Your task to perform on an android device: Go to internet settings Image 0: 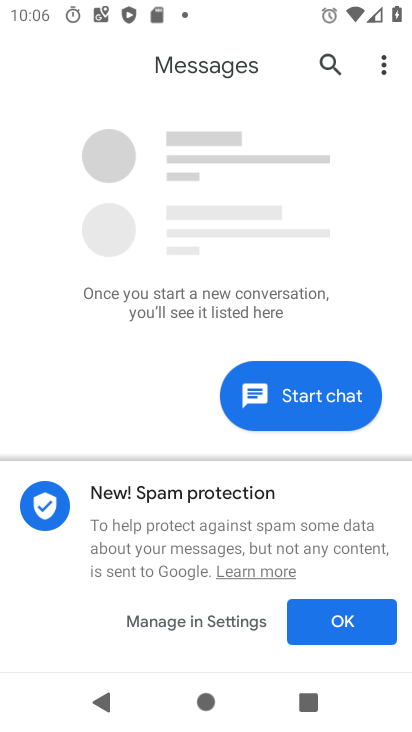
Step 0: press home button
Your task to perform on an android device: Go to internet settings Image 1: 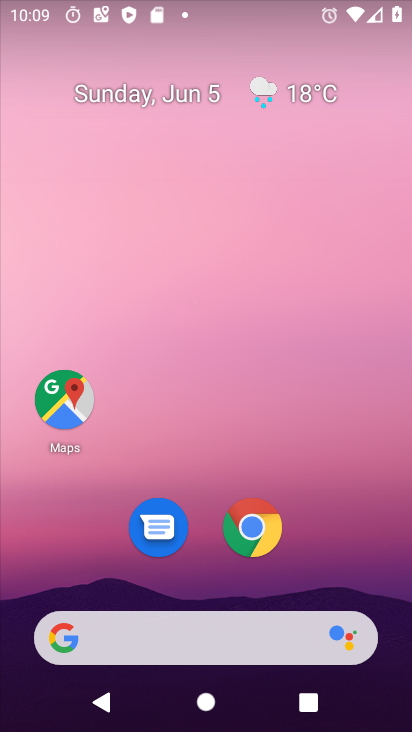
Step 1: drag from (338, 598) to (320, 10)
Your task to perform on an android device: Go to internet settings Image 2: 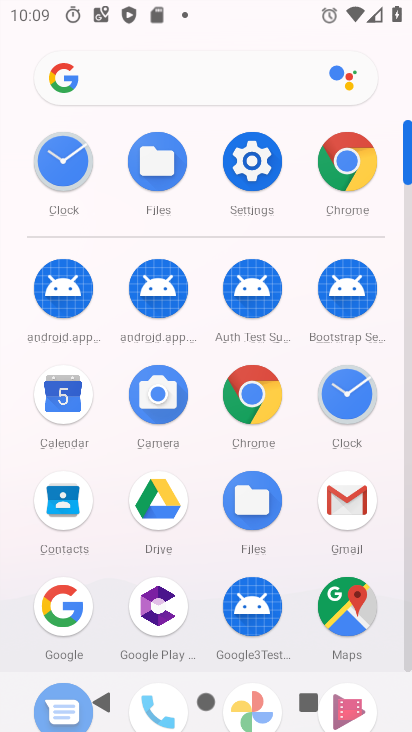
Step 2: click (270, 158)
Your task to perform on an android device: Go to internet settings Image 3: 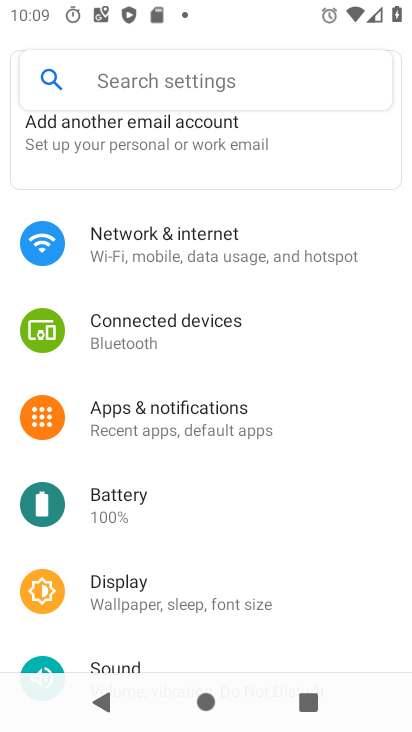
Step 3: click (192, 237)
Your task to perform on an android device: Go to internet settings Image 4: 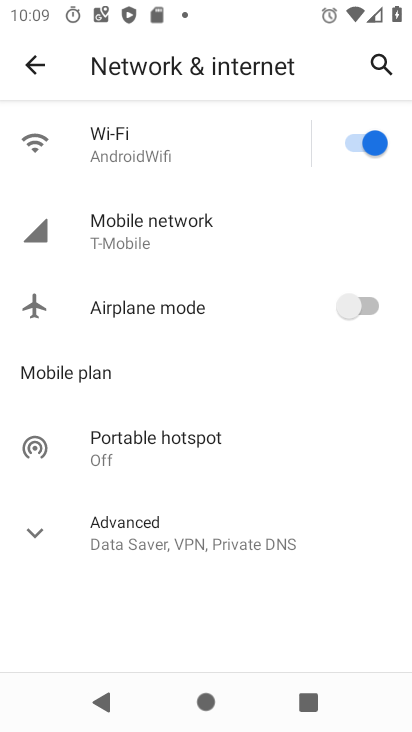
Step 4: task complete